Your task to perform on an android device: set the timer Image 0: 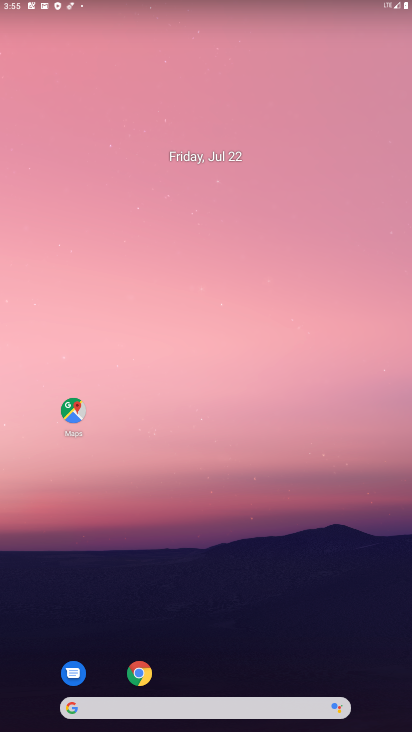
Step 0: drag from (214, 679) to (236, 149)
Your task to perform on an android device: set the timer Image 1: 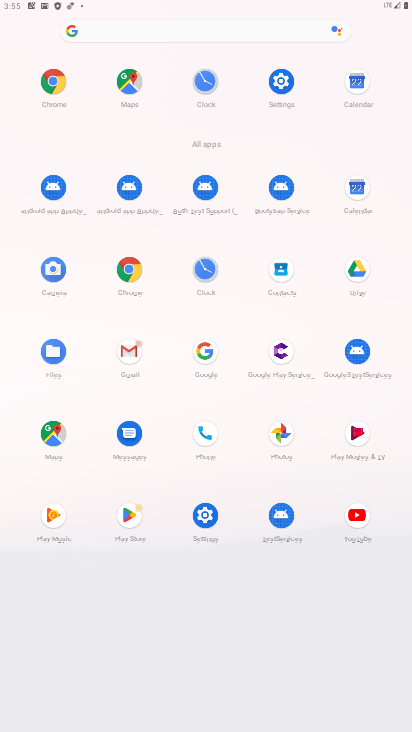
Step 1: click (209, 266)
Your task to perform on an android device: set the timer Image 2: 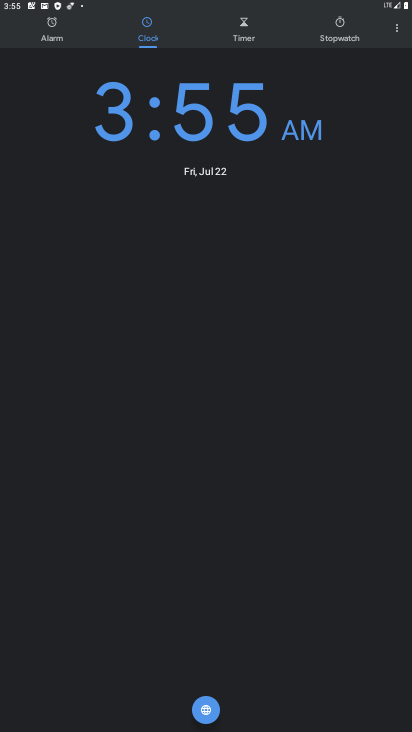
Step 2: click (251, 30)
Your task to perform on an android device: set the timer Image 3: 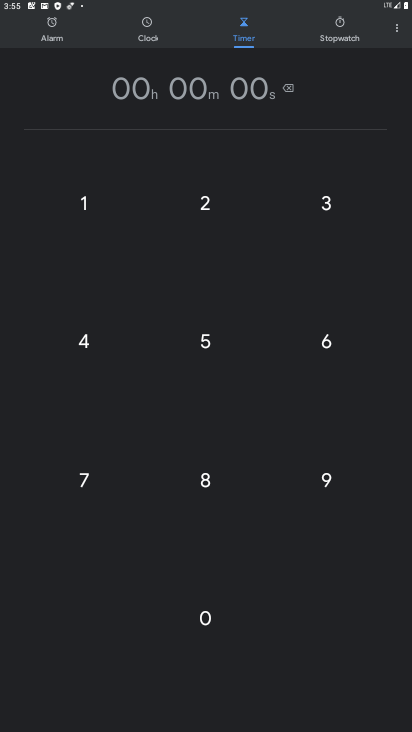
Step 3: click (79, 211)
Your task to perform on an android device: set the timer Image 4: 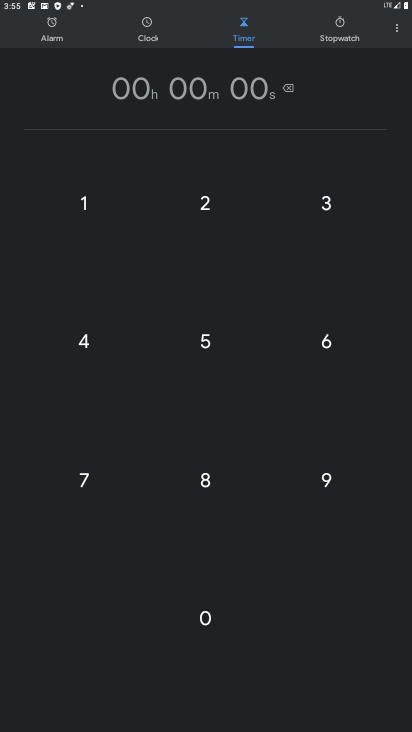
Step 4: click (79, 211)
Your task to perform on an android device: set the timer Image 5: 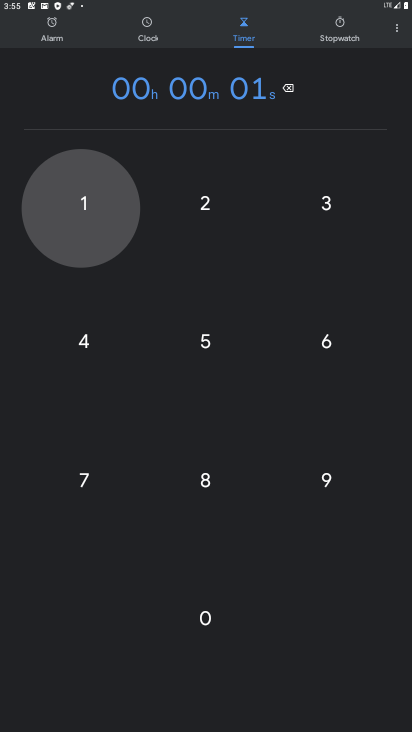
Step 5: click (79, 211)
Your task to perform on an android device: set the timer Image 6: 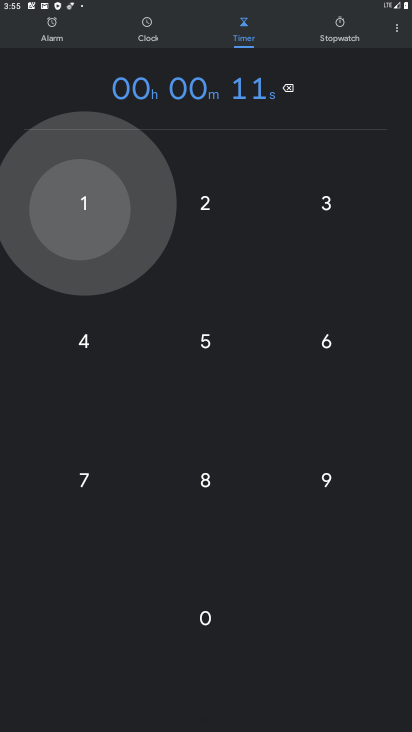
Step 6: click (79, 211)
Your task to perform on an android device: set the timer Image 7: 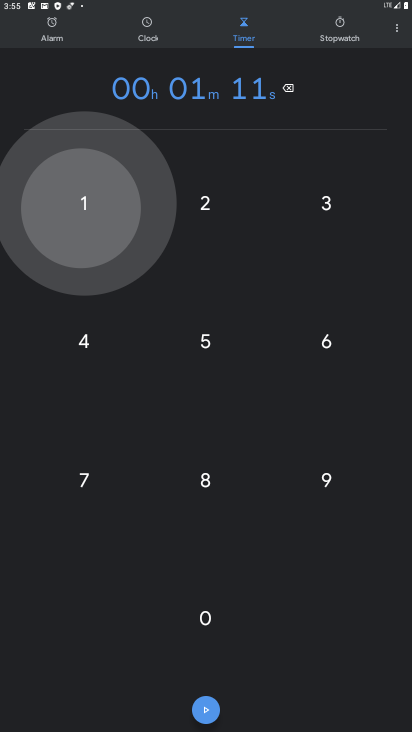
Step 7: click (79, 211)
Your task to perform on an android device: set the timer Image 8: 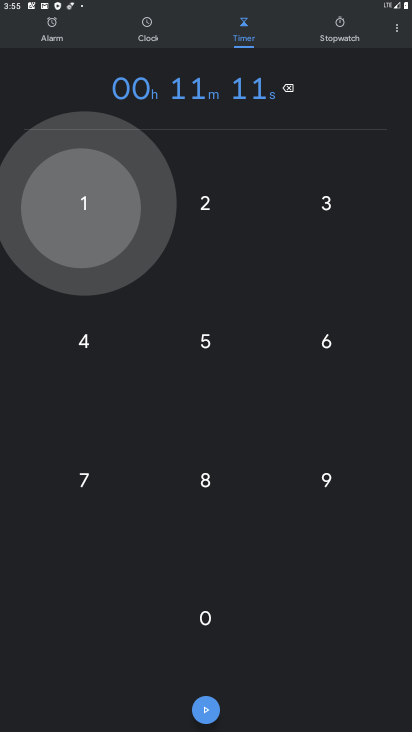
Step 8: click (79, 211)
Your task to perform on an android device: set the timer Image 9: 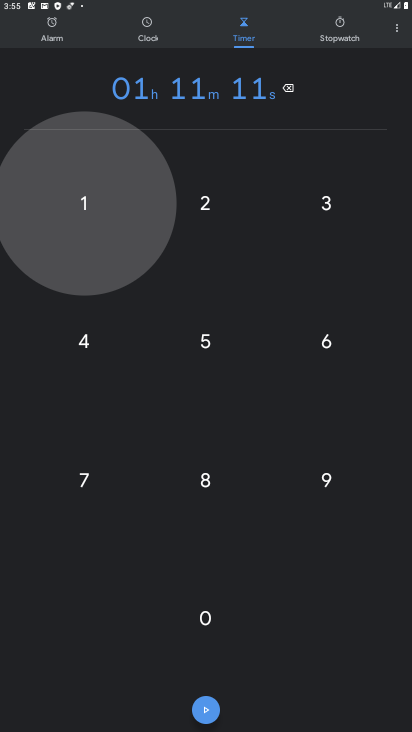
Step 9: click (79, 211)
Your task to perform on an android device: set the timer Image 10: 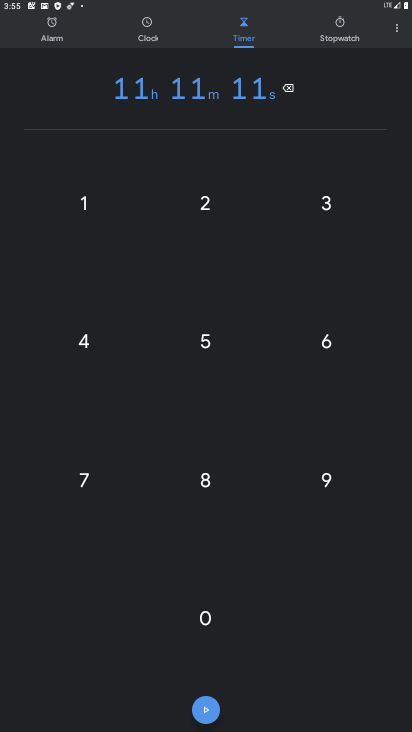
Step 10: click (212, 700)
Your task to perform on an android device: set the timer Image 11: 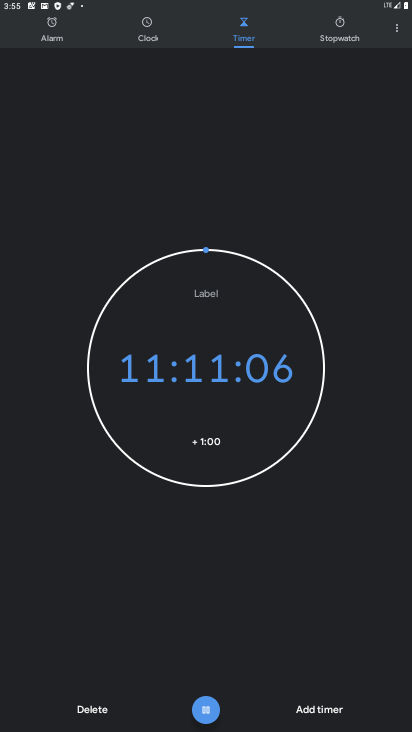
Step 11: task complete